Your task to perform on an android device: Open Chrome and go to the settings page Image 0: 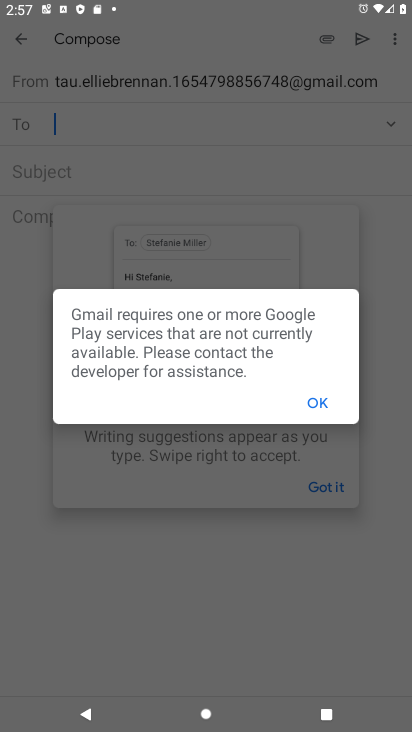
Step 0: press home button
Your task to perform on an android device: Open Chrome and go to the settings page Image 1: 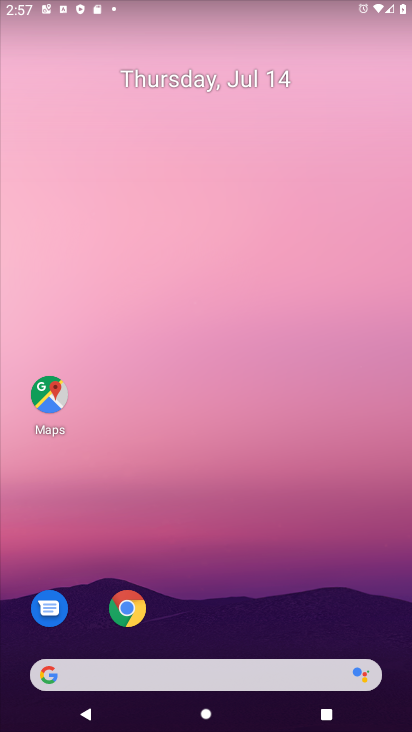
Step 1: click (127, 611)
Your task to perform on an android device: Open Chrome and go to the settings page Image 2: 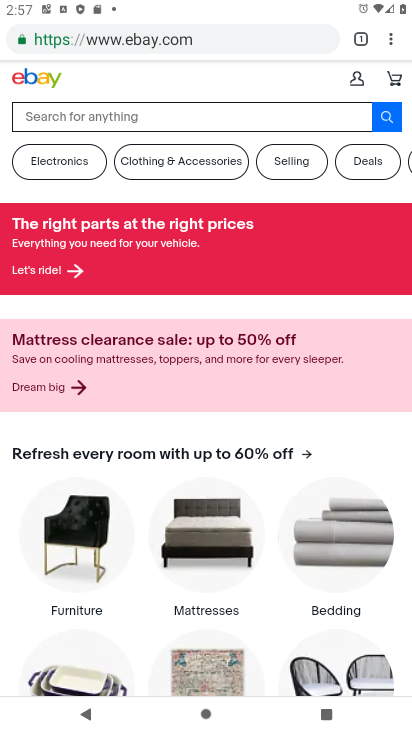
Step 2: click (390, 39)
Your task to perform on an android device: Open Chrome and go to the settings page Image 3: 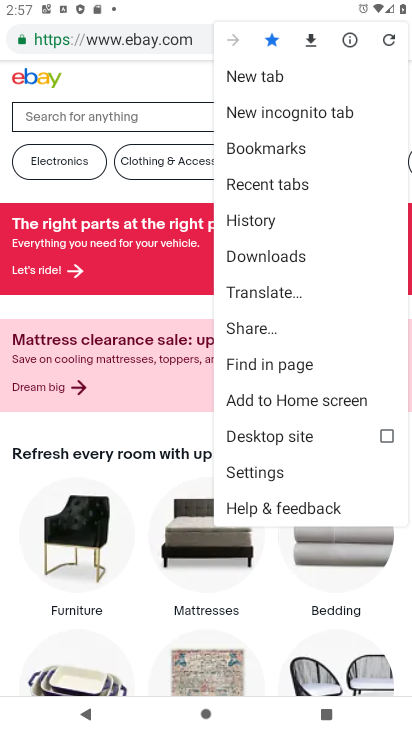
Step 3: click (262, 471)
Your task to perform on an android device: Open Chrome and go to the settings page Image 4: 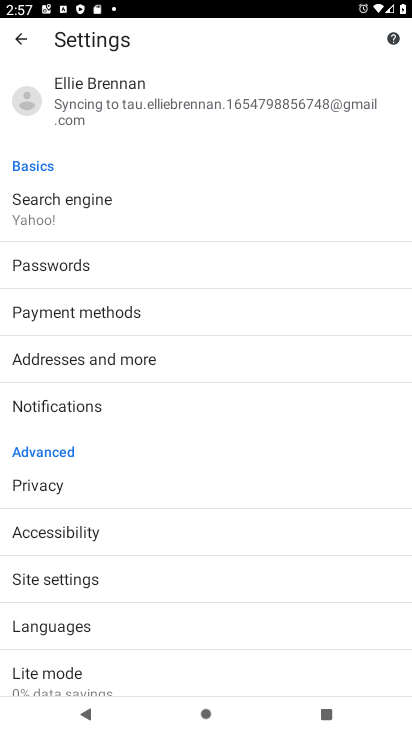
Step 4: task complete